Your task to perform on an android device: Go to Amazon Image 0: 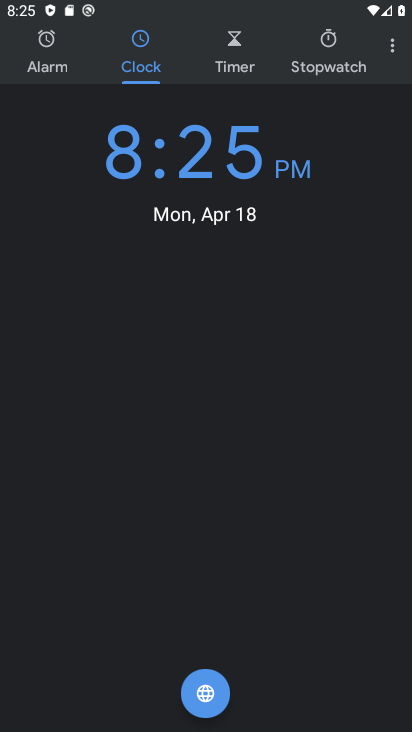
Step 0: press home button
Your task to perform on an android device: Go to Amazon Image 1: 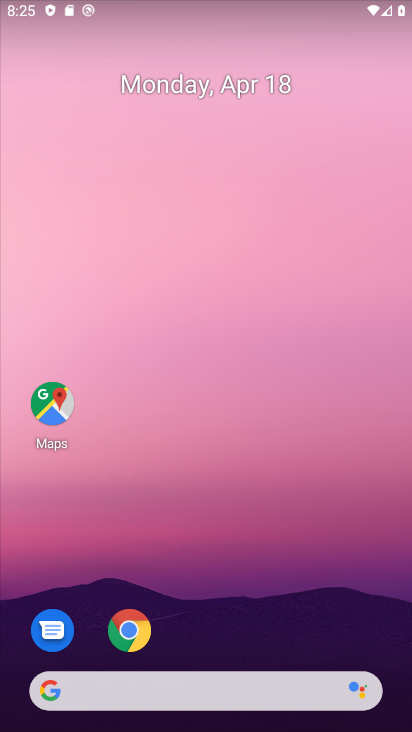
Step 1: click (134, 629)
Your task to perform on an android device: Go to Amazon Image 2: 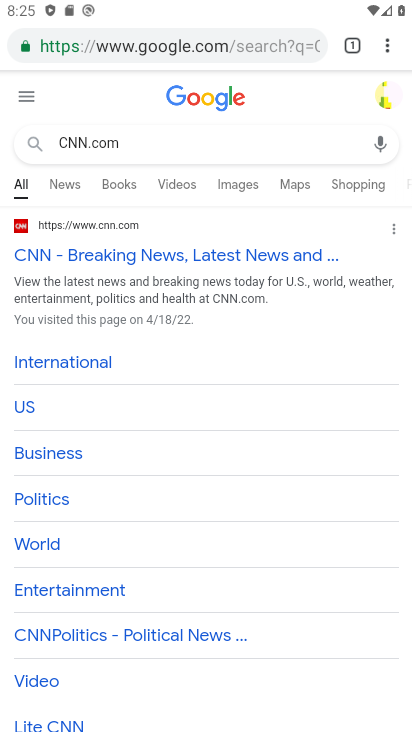
Step 2: click (163, 48)
Your task to perform on an android device: Go to Amazon Image 3: 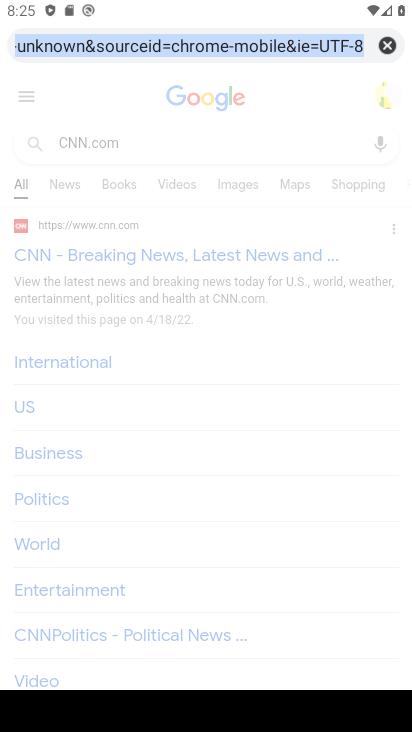
Step 3: type "Amazon.com"
Your task to perform on an android device: Go to Amazon Image 4: 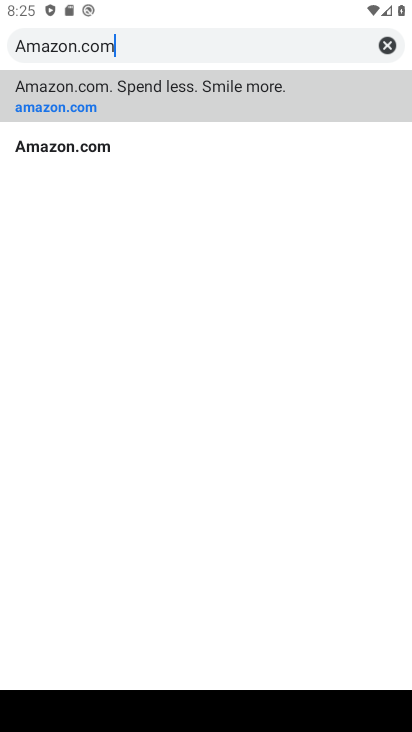
Step 4: click (84, 110)
Your task to perform on an android device: Go to Amazon Image 5: 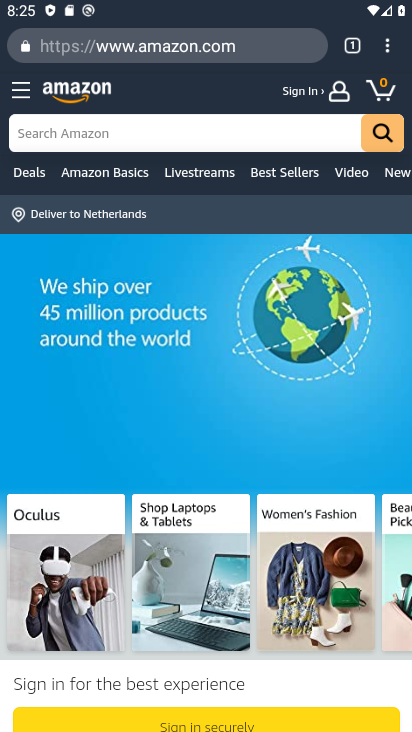
Step 5: task complete